Your task to perform on an android device: set the timer Image 0: 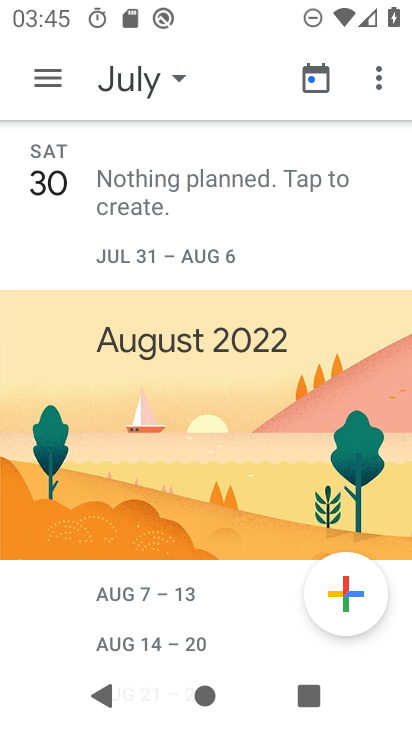
Step 0: press back button
Your task to perform on an android device: set the timer Image 1: 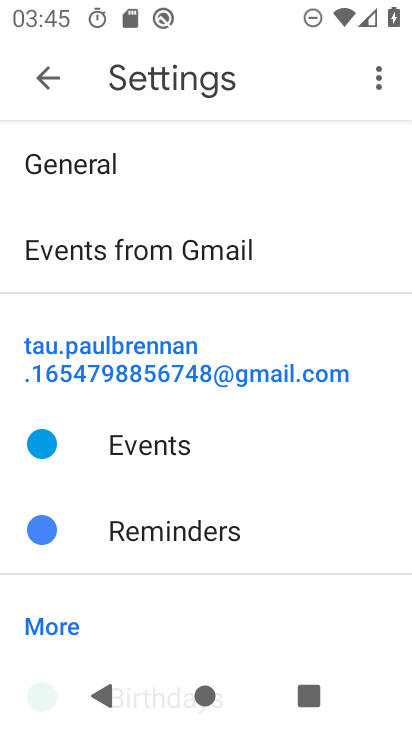
Step 1: press back button
Your task to perform on an android device: set the timer Image 2: 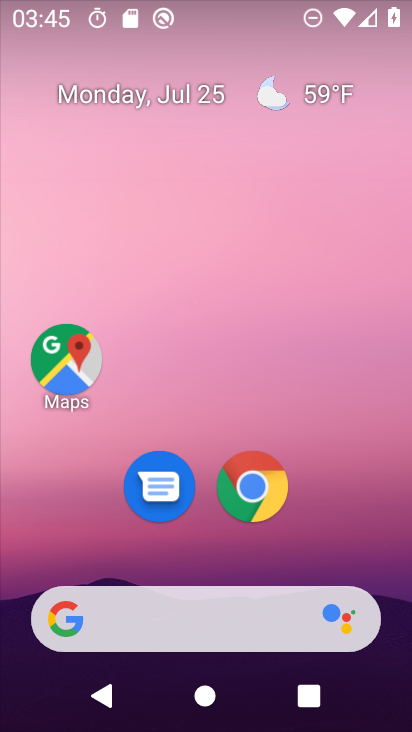
Step 2: drag from (188, 551) to (398, 409)
Your task to perform on an android device: set the timer Image 3: 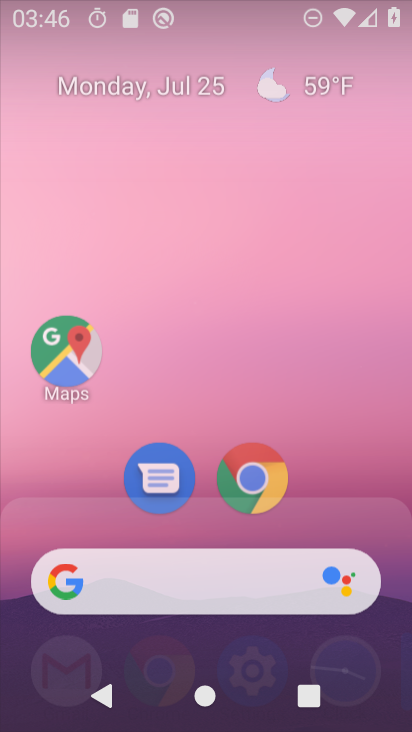
Step 3: click (342, 395)
Your task to perform on an android device: set the timer Image 4: 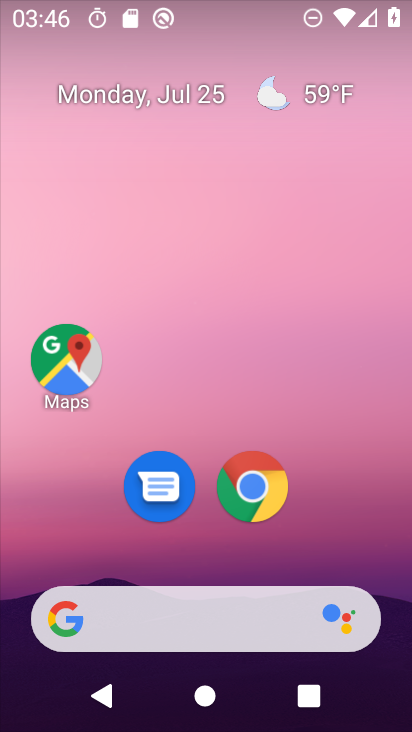
Step 4: drag from (152, 572) to (295, 33)
Your task to perform on an android device: set the timer Image 5: 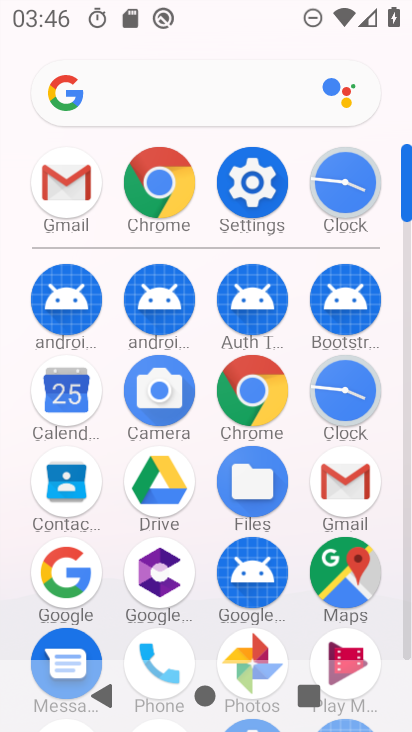
Step 5: click (339, 176)
Your task to perform on an android device: set the timer Image 6: 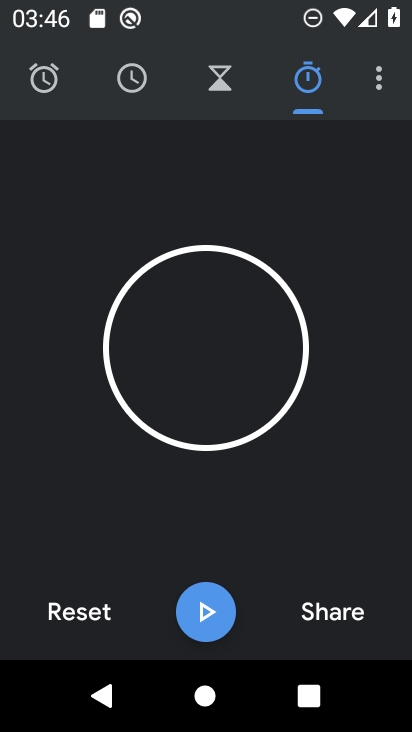
Step 6: click (228, 74)
Your task to perform on an android device: set the timer Image 7: 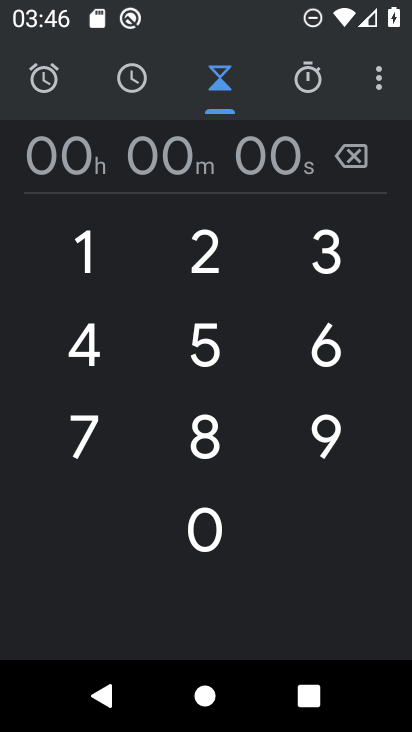
Step 7: click (187, 237)
Your task to perform on an android device: set the timer Image 8: 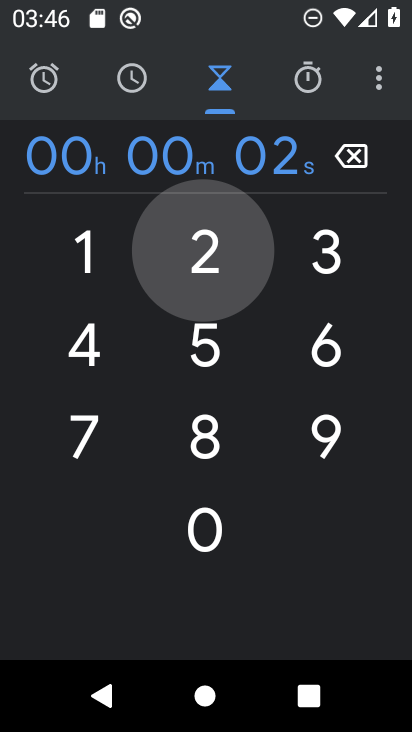
Step 8: click (315, 242)
Your task to perform on an android device: set the timer Image 9: 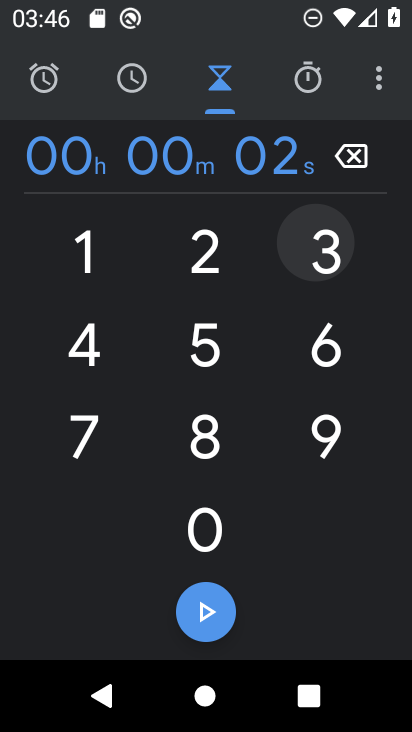
Step 9: click (178, 329)
Your task to perform on an android device: set the timer Image 10: 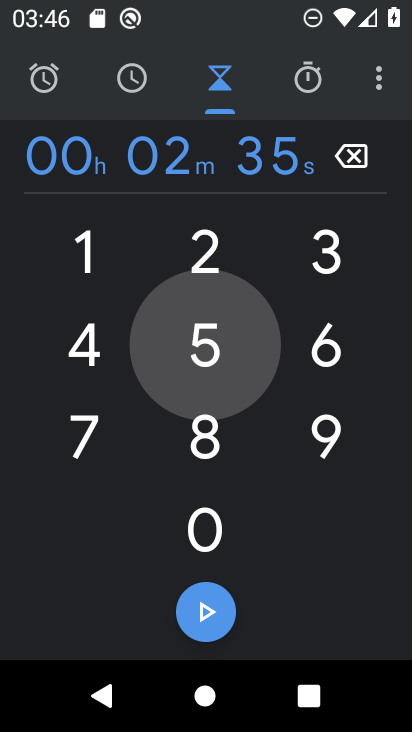
Step 10: click (329, 338)
Your task to perform on an android device: set the timer Image 11: 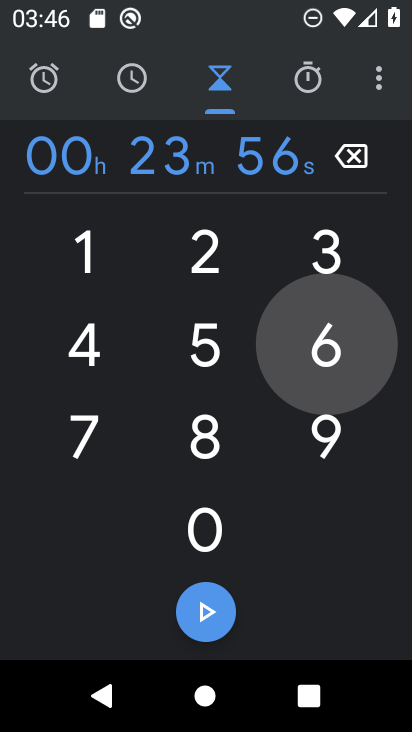
Step 11: click (67, 249)
Your task to perform on an android device: set the timer Image 12: 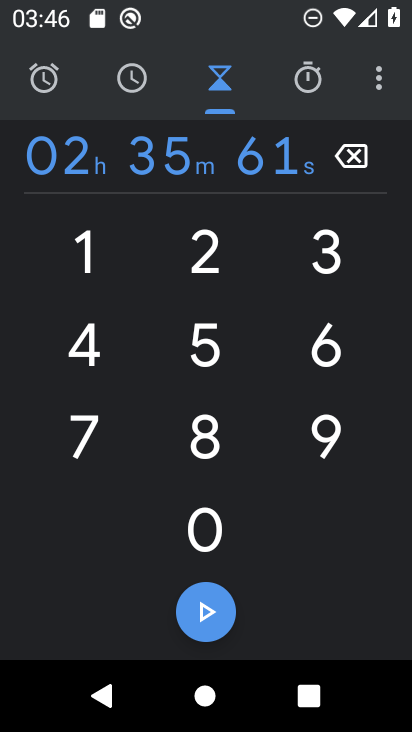
Step 12: task complete